Your task to perform on an android device: Open Google Maps Image 0: 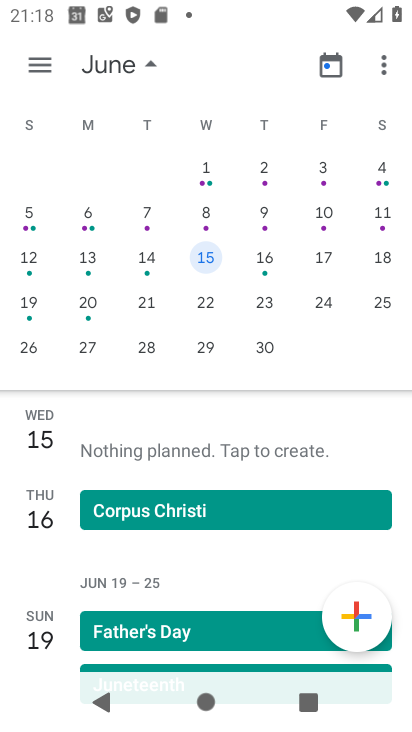
Step 0: press home button
Your task to perform on an android device: Open Google Maps Image 1: 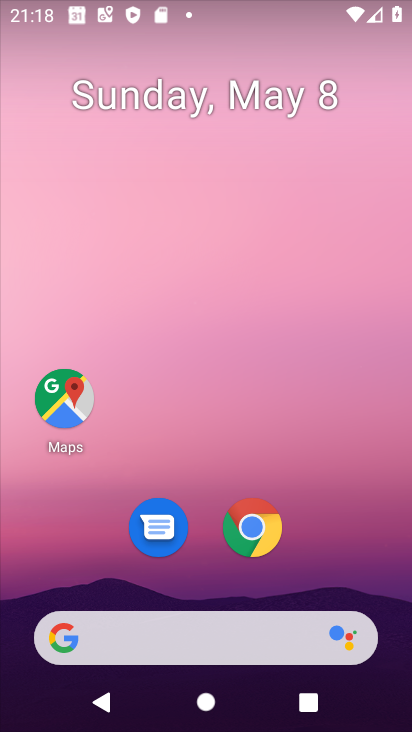
Step 1: click (61, 404)
Your task to perform on an android device: Open Google Maps Image 2: 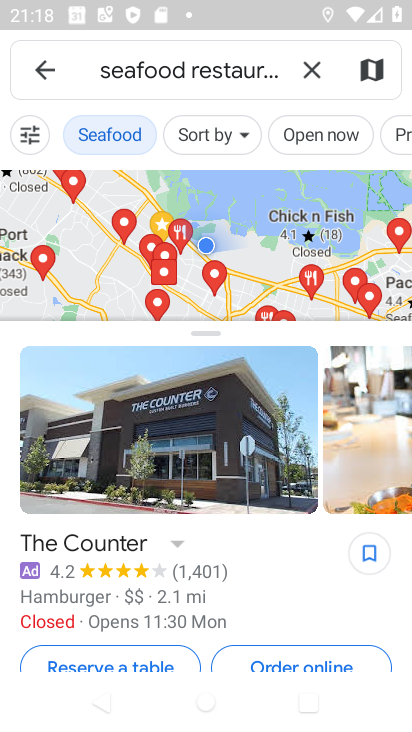
Step 2: task complete